Your task to perform on an android device: turn off picture-in-picture Image 0: 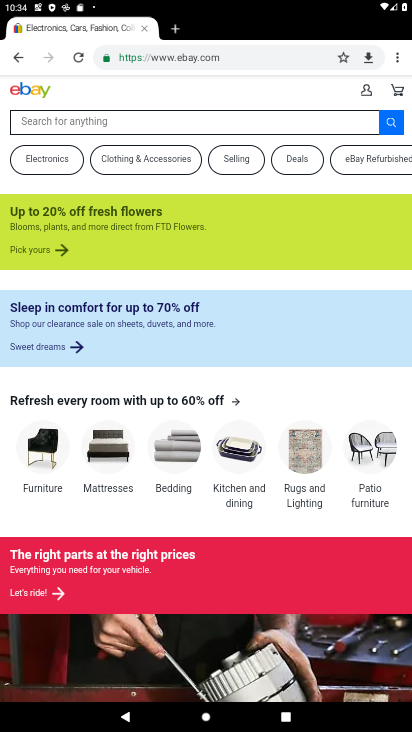
Step 0: click (391, 53)
Your task to perform on an android device: turn off picture-in-picture Image 1: 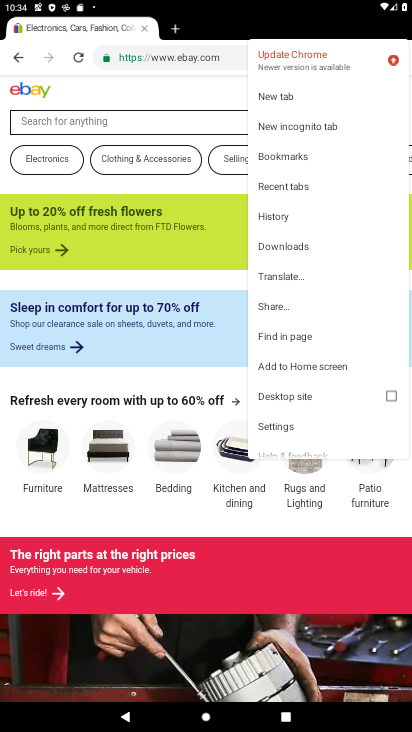
Step 1: click (288, 427)
Your task to perform on an android device: turn off picture-in-picture Image 2: 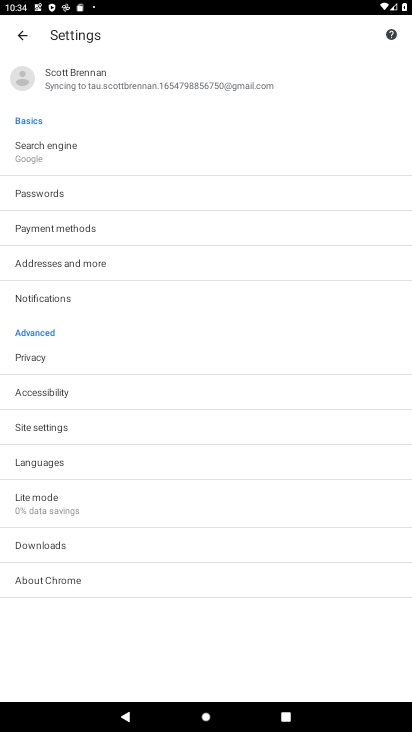
Step 2: click (23, 38)
Your task to perform on an android device: turn off picture-in-picture Image 3: 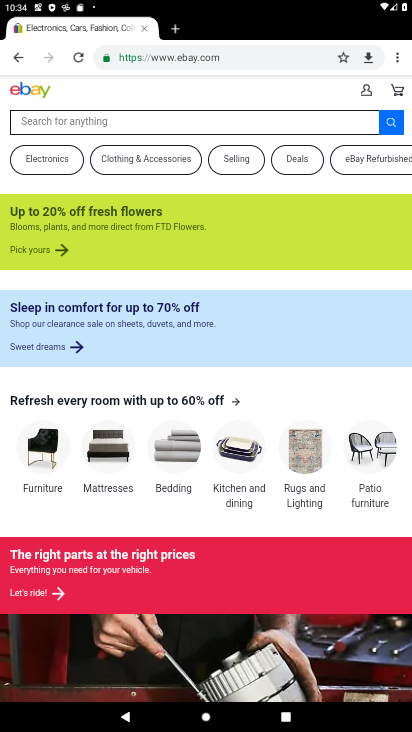
Step 3: press home button
Your task to perform on an android device: turn off picture-in-picture Image 4: 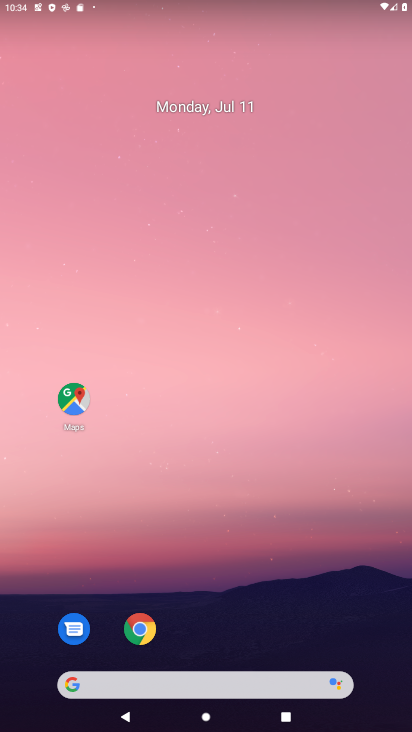
Step 4: drag from (252, 640) to (216, 42)
Your task to perform on an android device: turn off picture-in-picture Image 5: 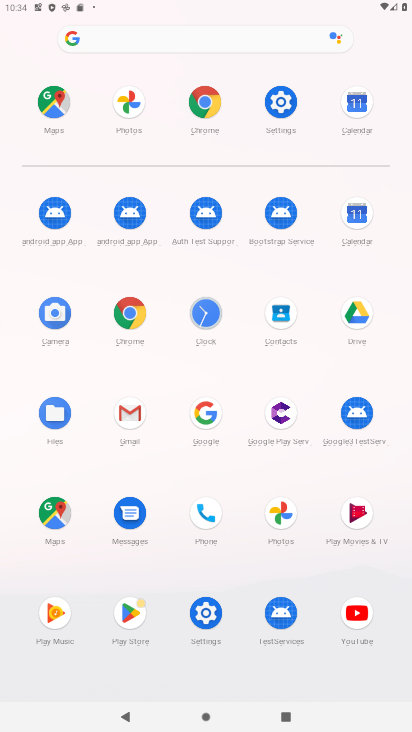
Step 5: click (282, 107)
Your task to perform on an android device: turn off picture-in-picture Image 6: 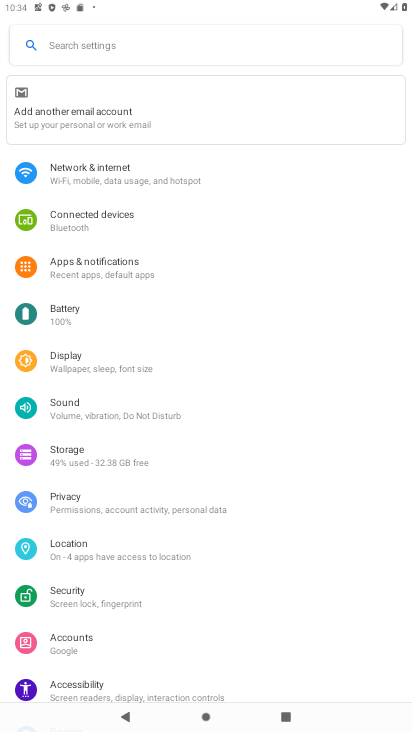
Step 6: drag from (149, 583) to (134, 161)
Your task to perform on an android device: turn off picture-in-picture Image 7: 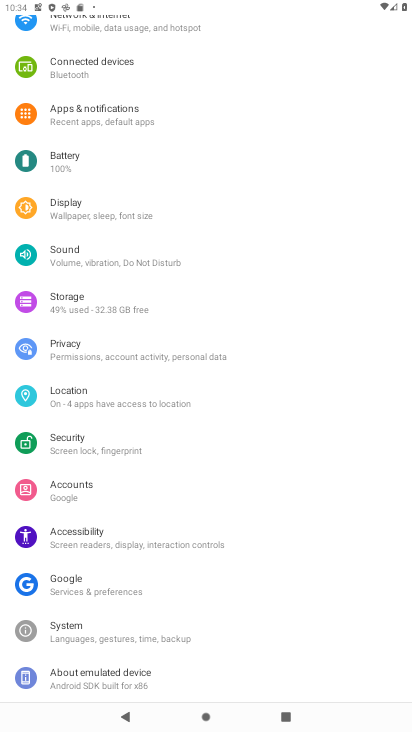
Step 7: click (113, 663)
Your task to perform on an android device: turn off picture-in-picture Image 8: 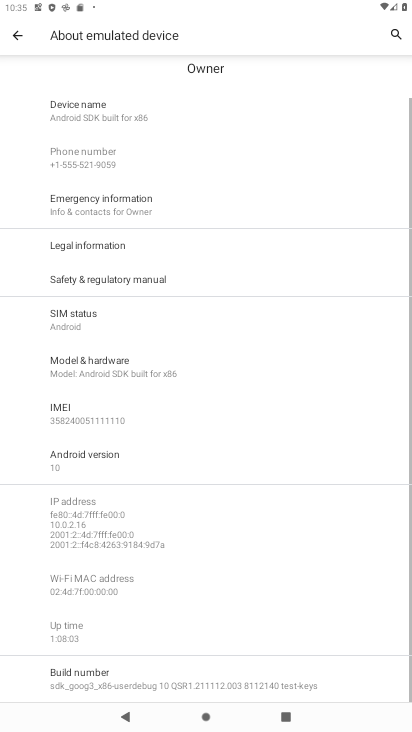
Step 8: drag from (129, 625) to (129, 427)
Your task to perform on an android device: turn off picture-in-picture Image 9: 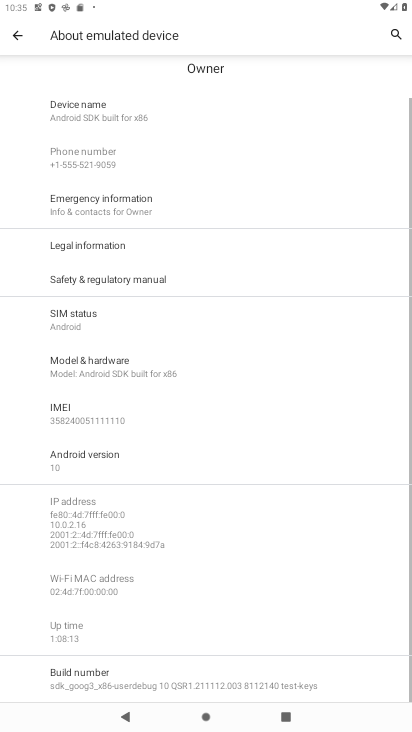
Step 9: click (0, 36)
Your task to perform on an android device: turn off picture-in-picture Image 10: 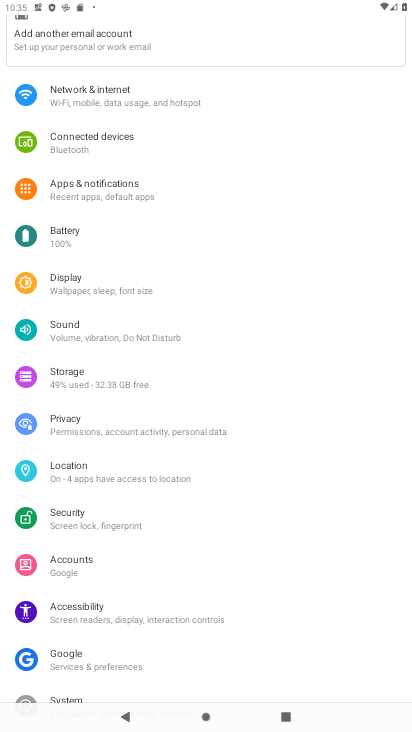
Step 10: click (124, 204)
Your task to perform on an android device: turn off picture-in-picture Image 11: 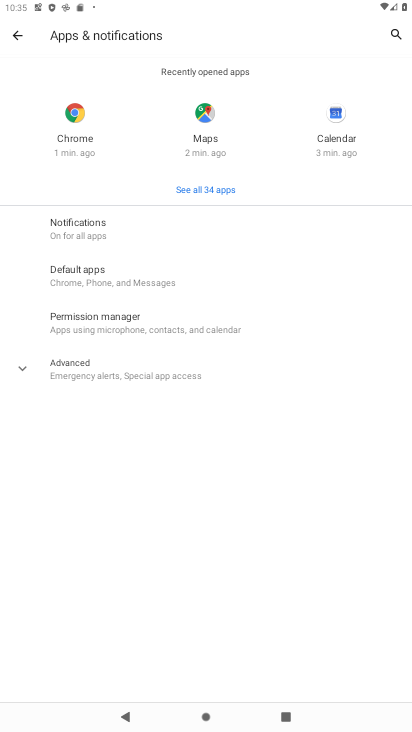
Step 11: click (88, 366)
Your task to perform on an android device: turn off picture-in-picture Image 12: 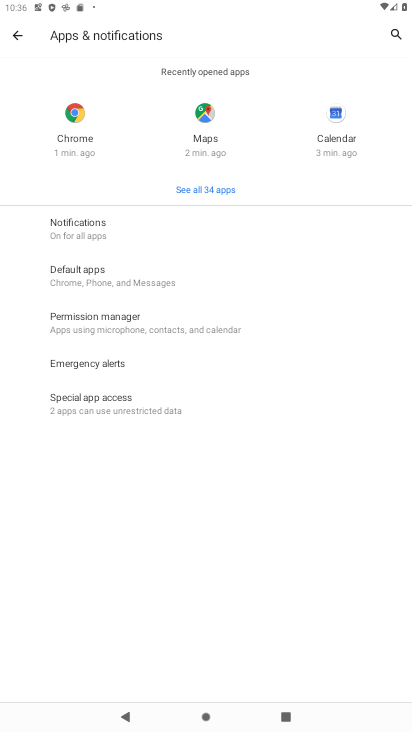
Step 12: click (97, 394)
Your task to perform on an android device: turn off picture-in-picture Image 13: 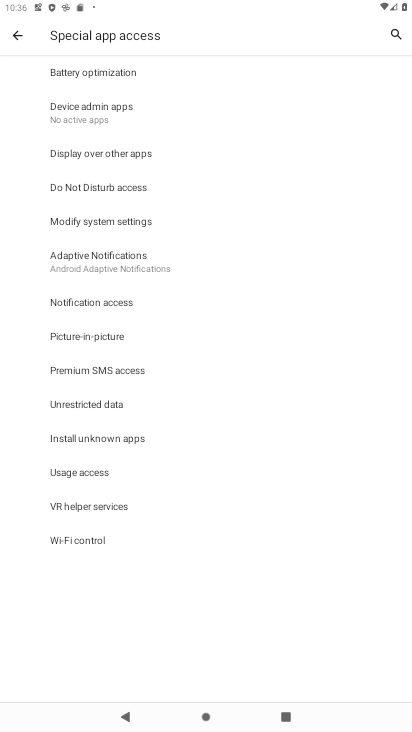
Step 13: click (89, 334)
Your task to perform on an android device: turn off picture-in-picture Image 14: 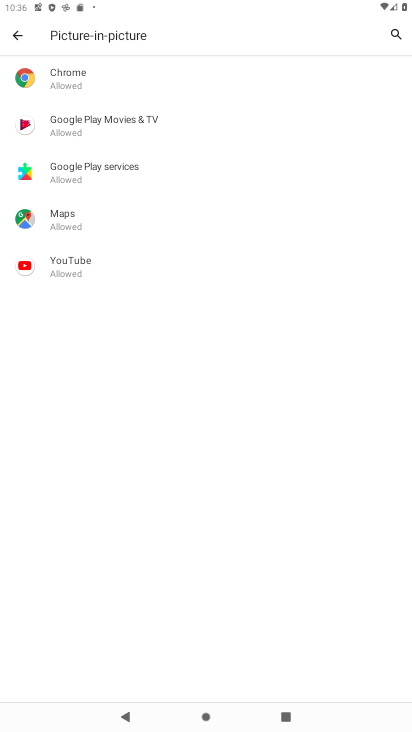
Step 14: click (119, 93)
Your task to perform on an android device: turn off picture-in-picture Image 15: 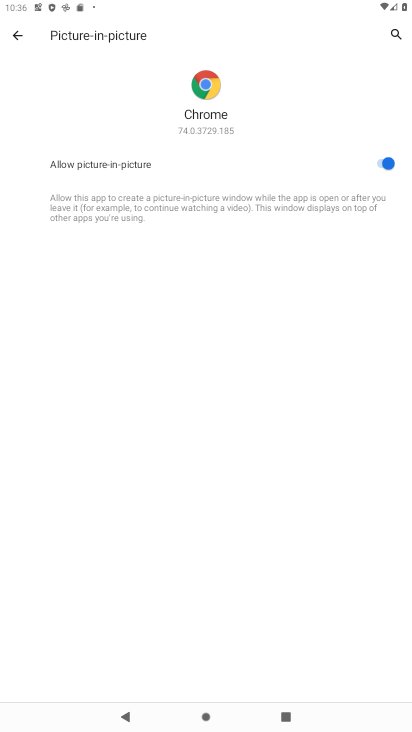
Step 15: click (378, 177)
Your task to perform on an android device: turn off picture-in-picture Image 16: 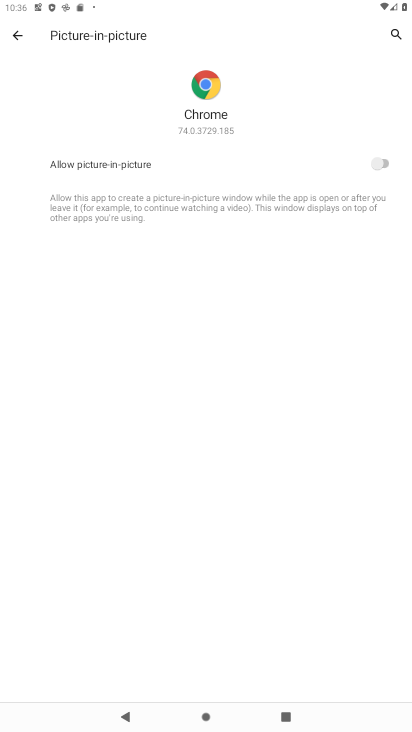
Step 16: task complete